Your task to perform on an android device: Search for Italian restaurants on Maps Image 0: 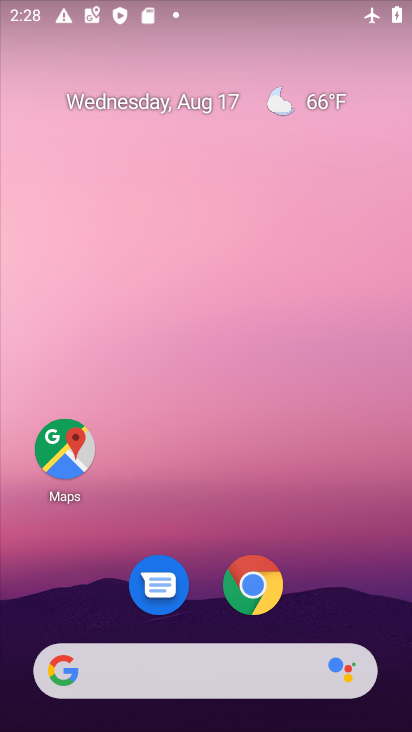
Step 0: click (67, 449)
Your task to perform on an android device: Search for Italian restaurants on Maps Image 1: 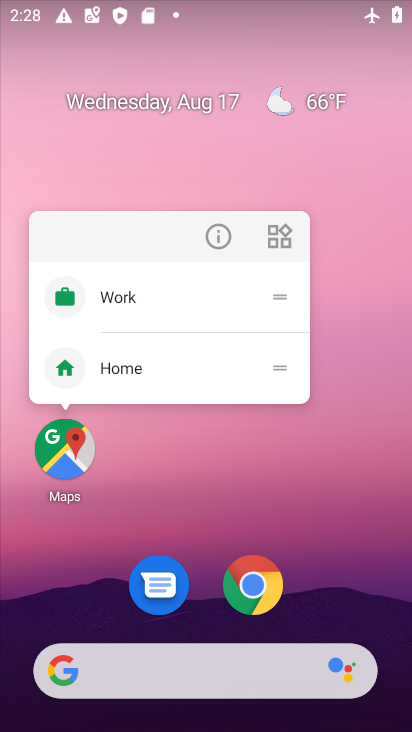
Step 1: click (67, 449)
Your task to perform on an android device: Search for Italian restaurants on Maps Image 2: 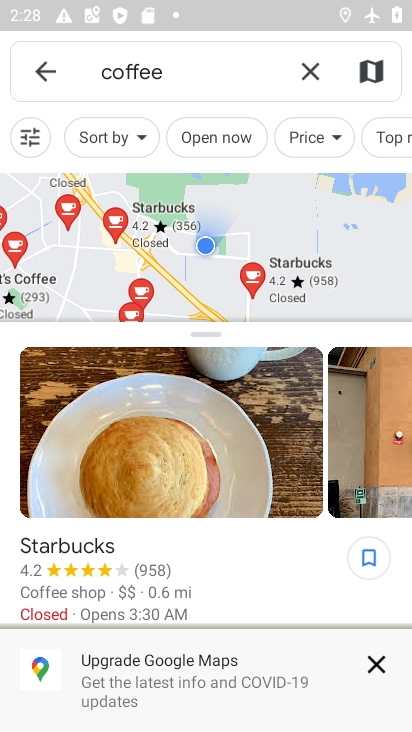
Step 2: click (305, 69)
Your task to perform on an android device: Search for Italian restaurants on Maps Image 3: 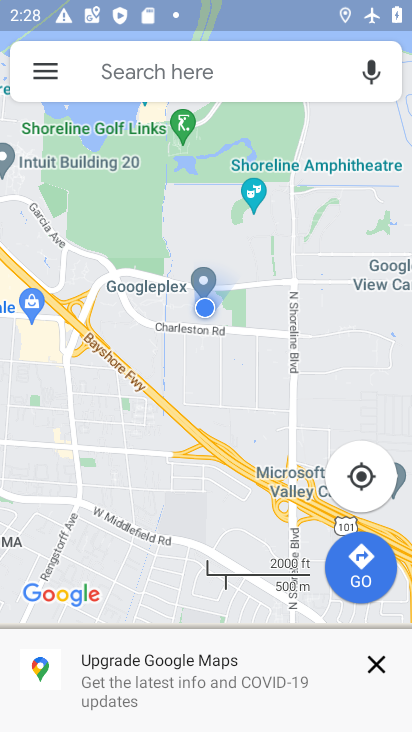
Step 3: click (253, 73)
Your task to perform on an android device: Search for Italian restaurants on Maps Image 4: 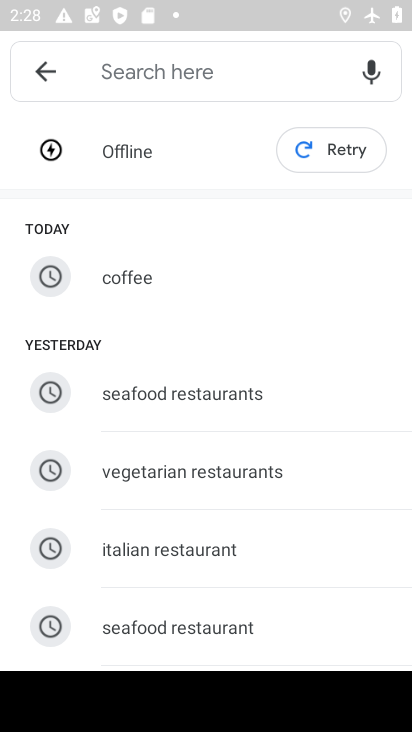
Step 4: click (194, 547)
Your task to perform on an android device: Search for Italian restaurants on Maps Image 5: 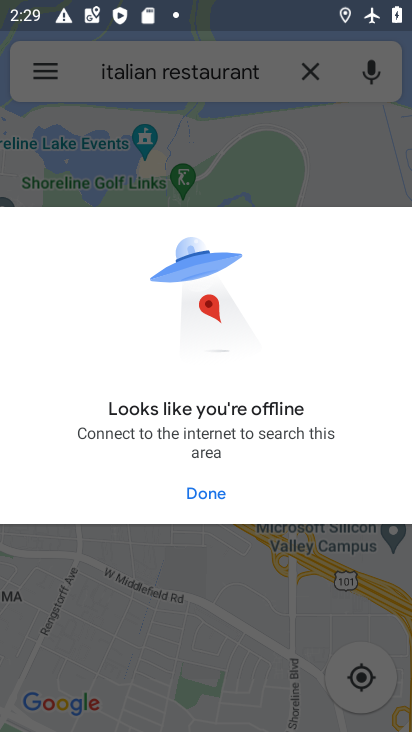
Step 5: task complete